Your task to perform on an android device: turn on data saver in the chrome app Image 0: 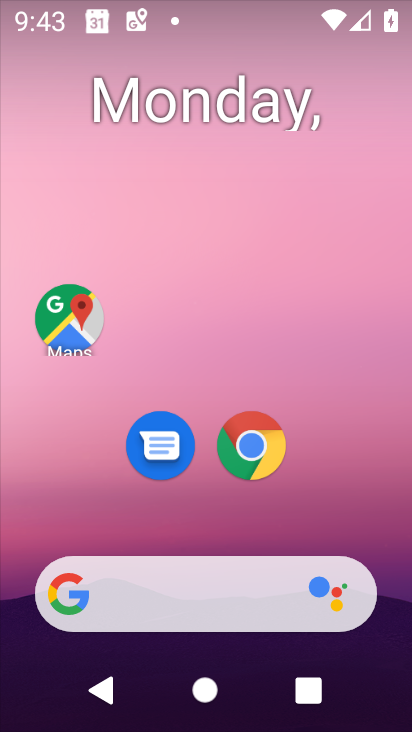
Step 0: click (208, 463)
Your task to perform on an android device: turn on data saver in the chrome app Image 1: 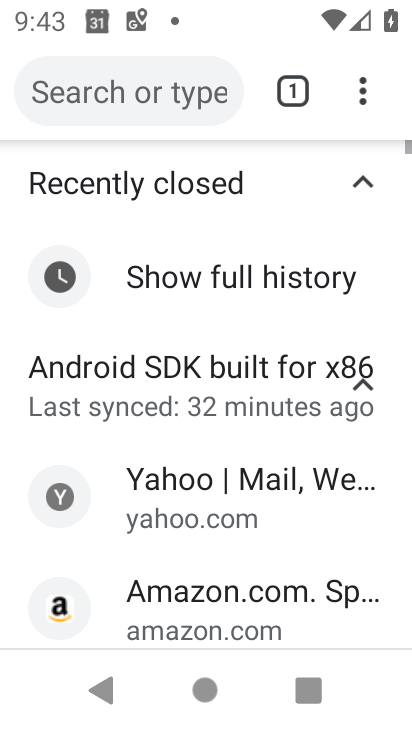
Step 1: click (372, 98)
Your task to perform on an android device: turn on data saver in the chrome app Image 2: 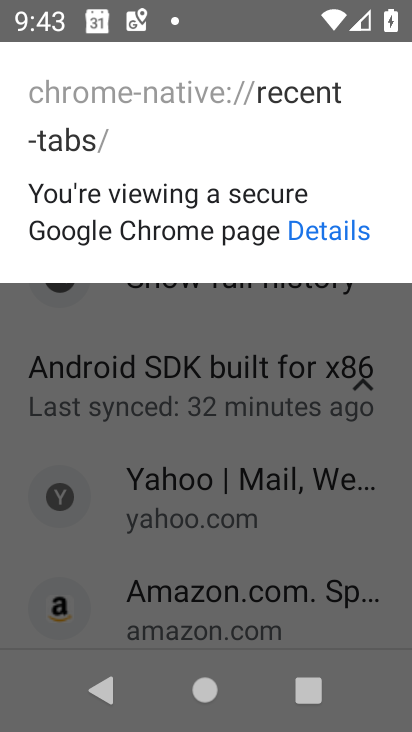
Step 2: click (259, 438)
Your task to perform on an android device: turn on data saver in the chrome app Image 3: 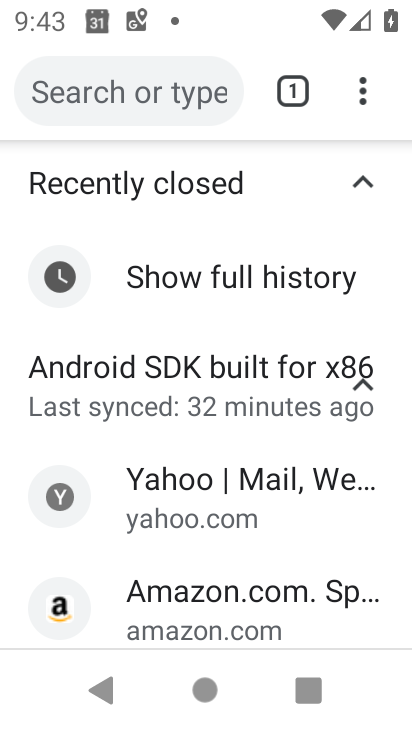
Step 3: click (363, 85)
Your task to perform on an android device: turn on data saver in the chrome app Image 4: 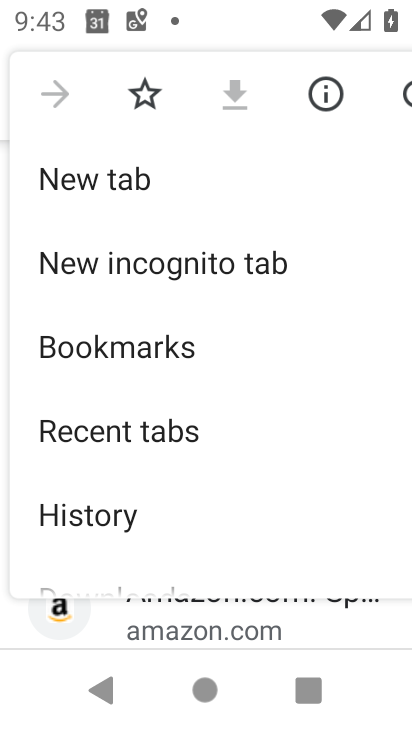
Step 4: drag from (238, 552) to (290, 100)
Your task to perform on an android device: turn on data saver in the chrome app Image 5: 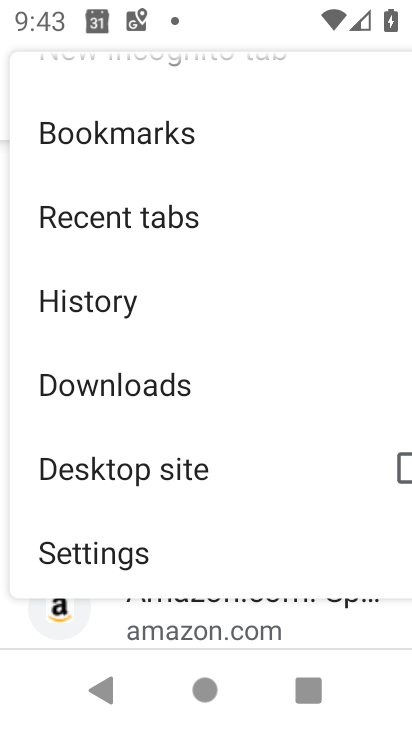
Step 5: click (130, 538)
Your task to perform on an android device: turn on data saver in the chrome app Image 6: 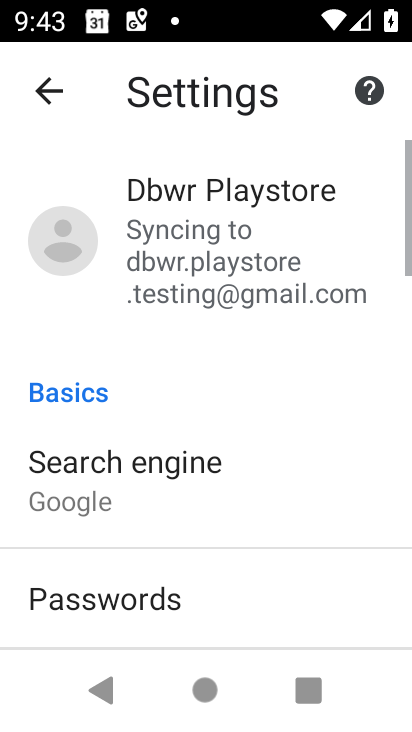
Step 6: drag from (241, 582) to (401, 31)
Your task to perform on an android device: turn on data saver in the chrome app Image 7: 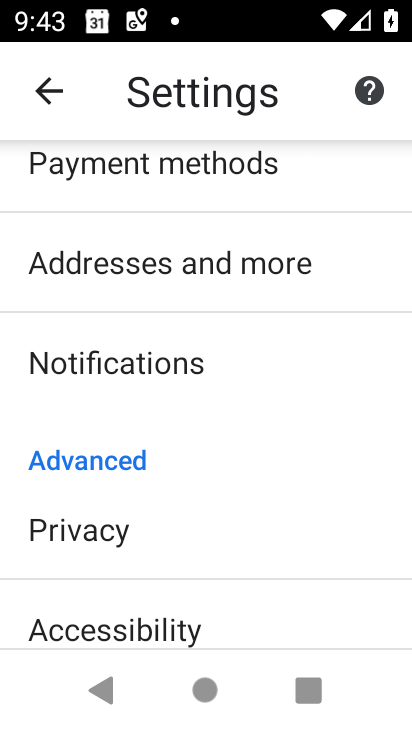
Step 7: drag from (260, 609) to (357, 68)
Your task to perform on an android device: turn on data saver in the chrome app Image 8: 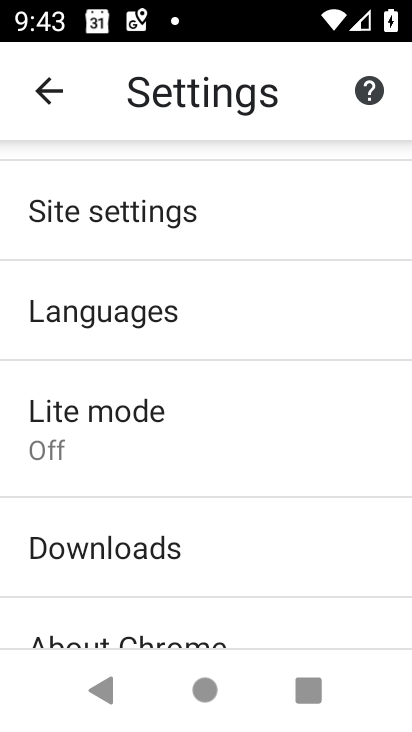
Step 8: click (213, 447)
Your task to perform on an android device: turn on data saver in the chrome app Image 9: 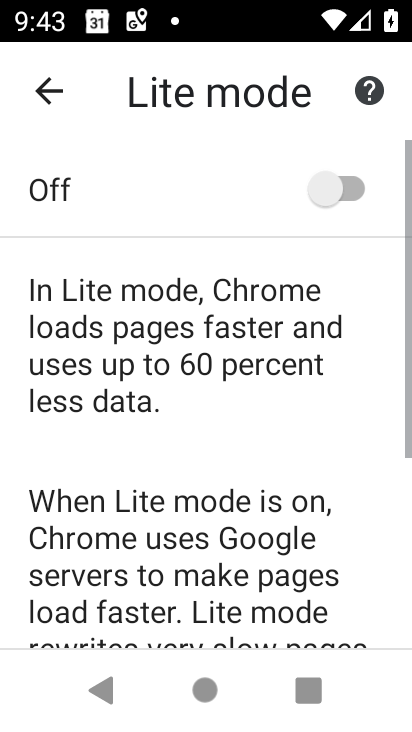
Step 9: click (340, 190)
Your task to perform on an android device: turn on data saver in the chrome app Image 10: 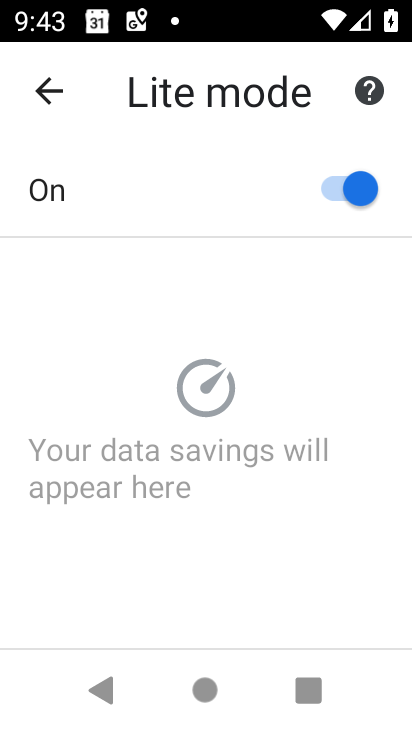
Step 10: task complete